Your task to perform on an android device: toggle javascript in the chrome app Image 0: 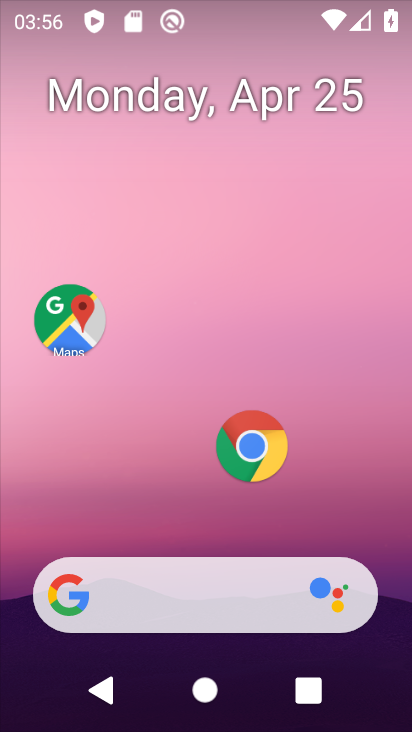
Step 0: click (256, 437)
Your task to perform on an android device: toggle javascript in the chrome app Image 1: 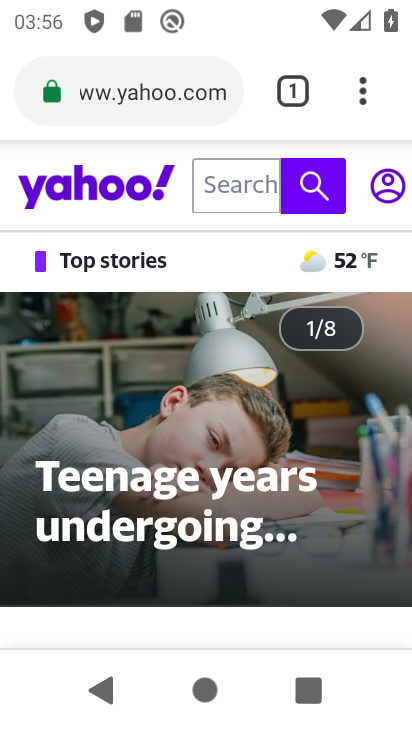
Step 1: click (366, 79)
Your task to perform on an android device: toggle javascript in the chrome app Image 2: 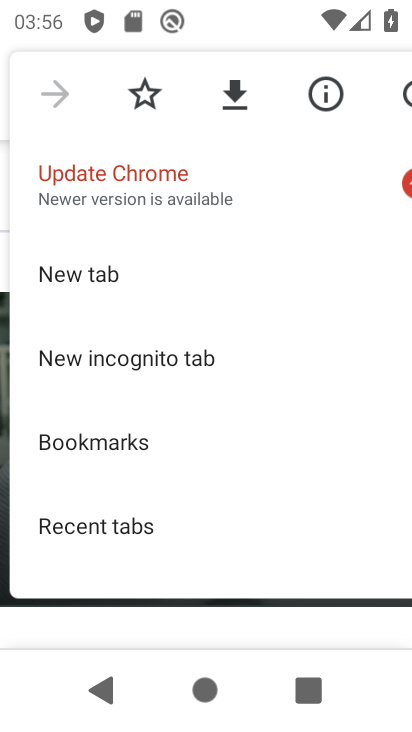
Step 2: drag from (103, 509) to (231, 46)
Your task to perform on an android device: toggle javascript in the chrome app Image 3: 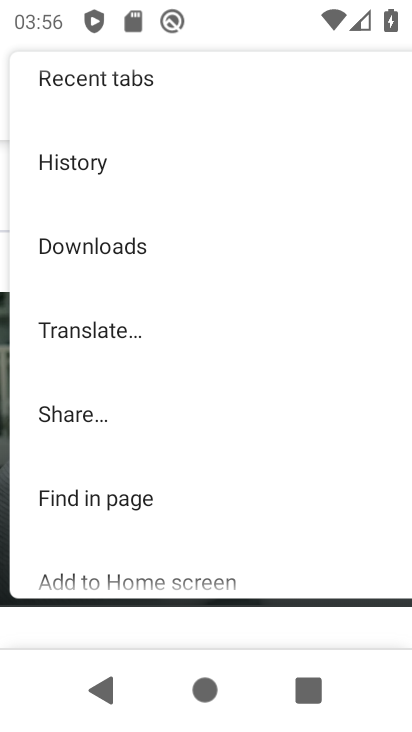
Step 3: drag from (95, 412) to (122, 18)
Your task to perform on an android device: toggle javascript in the chrome app Image 4: 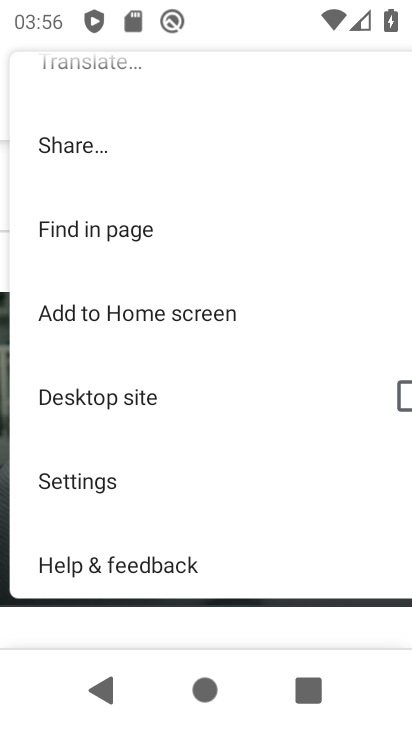
Step 4: click (124, 493)
Your task to perform on an android device: toggle javascript in the chrome app Image 5: 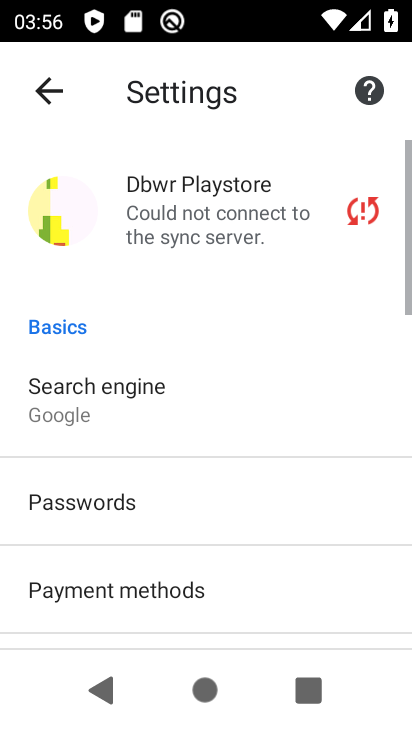
Step 5: drag from (124, 493) to (94, 93)
Your task to perform on an android device: toggle javascript in the chrome app Image 6: 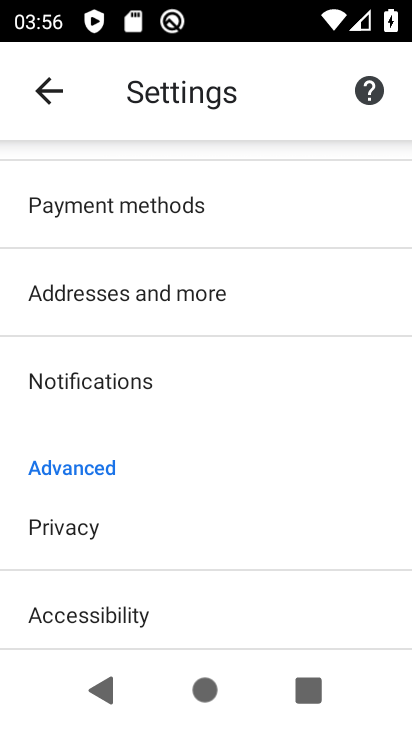
Step 6: drag from (62, 602) to (126, 236)
Your task to perform on an android device: toggle javascript in the chrome app Image 7: 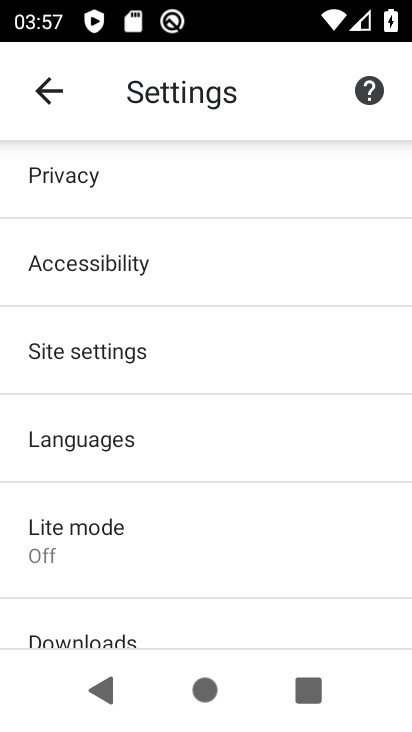
Step 7: click (94, 363)
Your task to perform on an android device: toggle javascript in the chrome app Image 8: 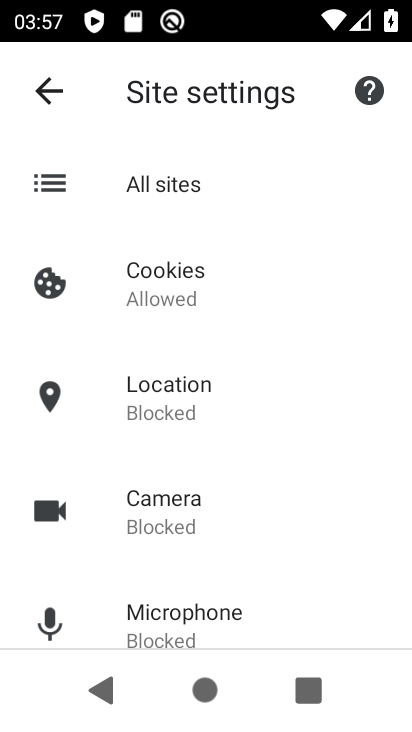
Step 8: drag from (42, 551) to (43, 150)
Your task to perform on an android device: toggle javascript in the chrome app Image 9: 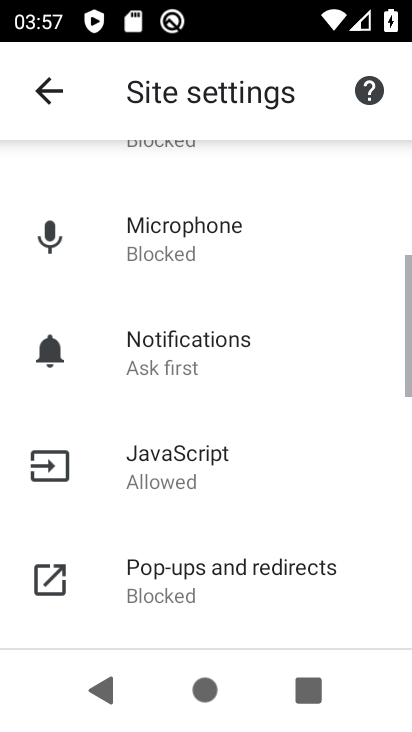
Step 9: click (144, 486)
Your task to perform on an android device: toggle javascript in the chrome app Image 10: 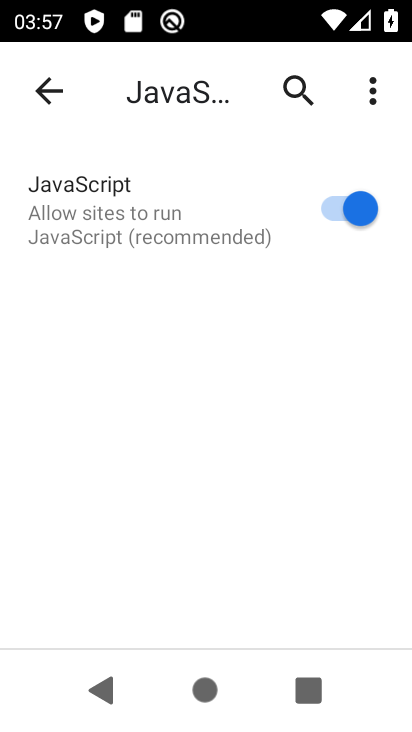
Step 10: click (341, 215)
Your task to perform on an android device: toggle javascript in the chrome app Image 11: 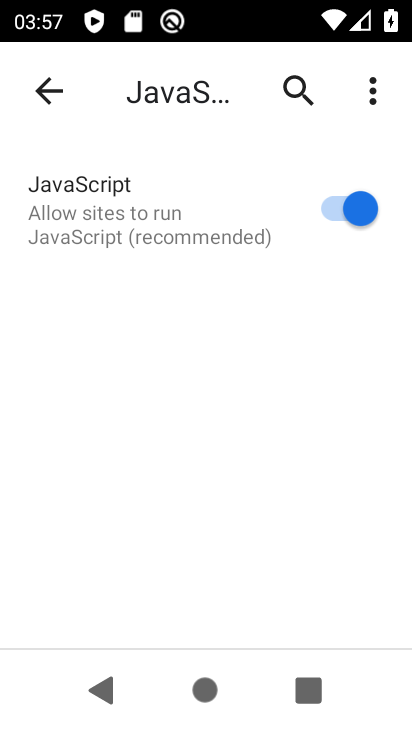
Step 11: click (341, 215)
Your task to perform on an android device: toggle javascript in the chrome app Image 12: 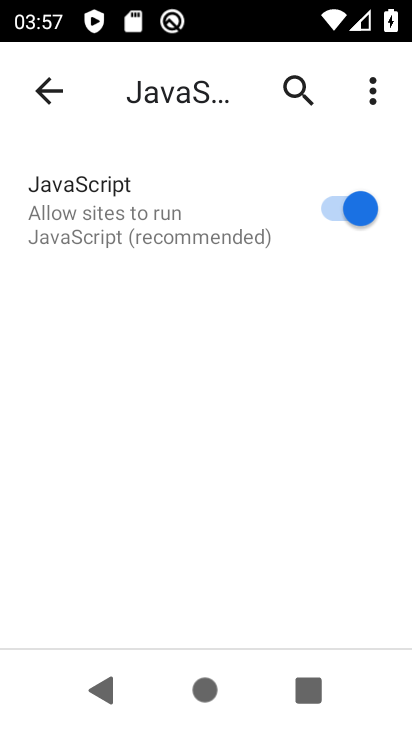
Step 12: task complete